Your task to perform on an android device: Go to display settings Image 0: 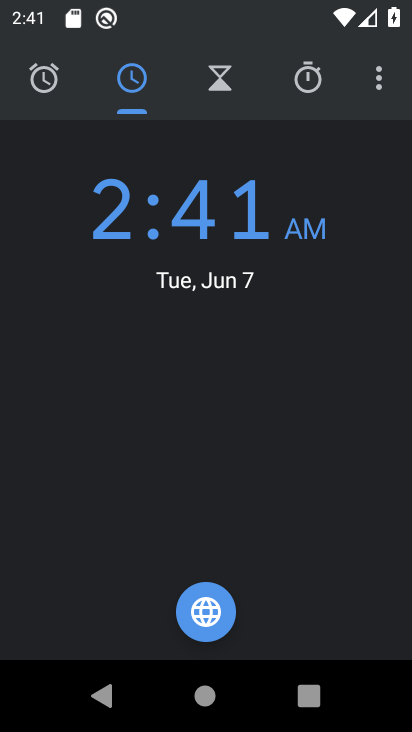
Step 0: press home button
Your task to perform on an android device: Go to display settings Image 1: 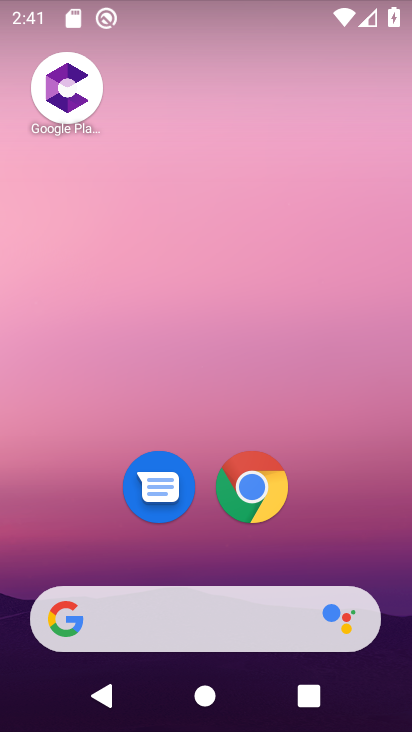
Step 1: click (296, 104)
Your task to perform on an android device: Go to display settings Image 2: 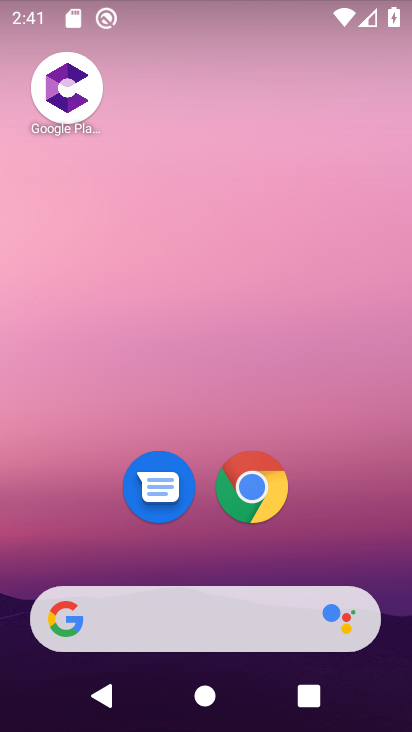
Step 2: drag from (394, 581) to (288, 68)
Your task to perform on an android device: Go to display settings Image 3: 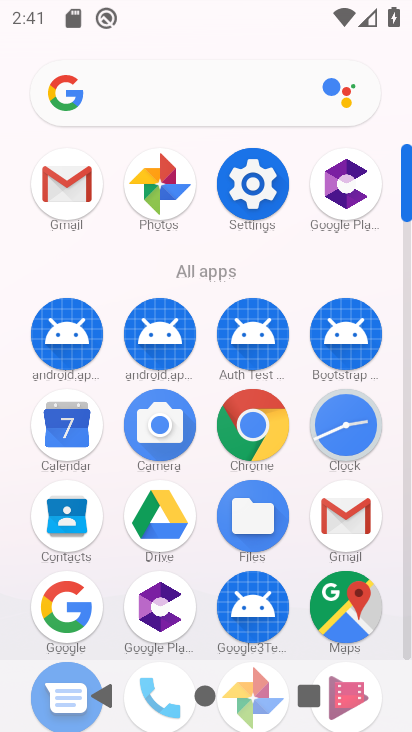
Step 3: click (272, 176)
Your task to perform on an android device: Go to display settings Image 4: 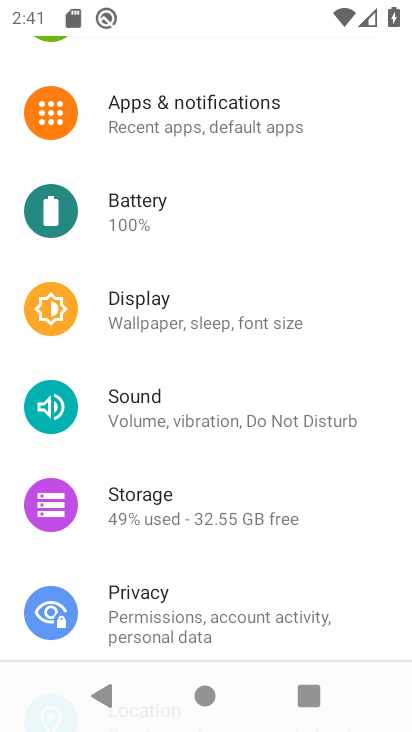
Step 4: click (263, 327)
Your task to perform on an android device: Go to display settings Image 5: 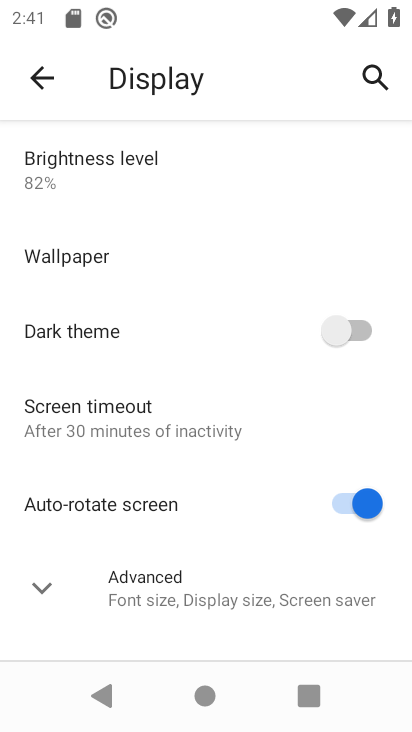
Step 5: task complete